Your task to perform on an android device: Open settings Image 0: 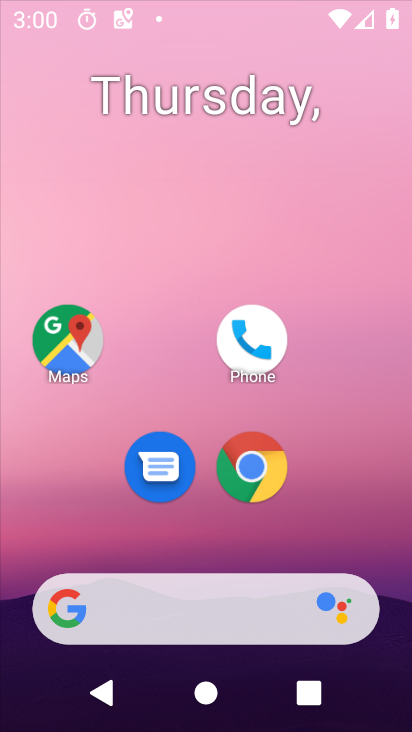
Step 0: click (214, 222)
Your task to perform on an android device: Open settings Image 1: 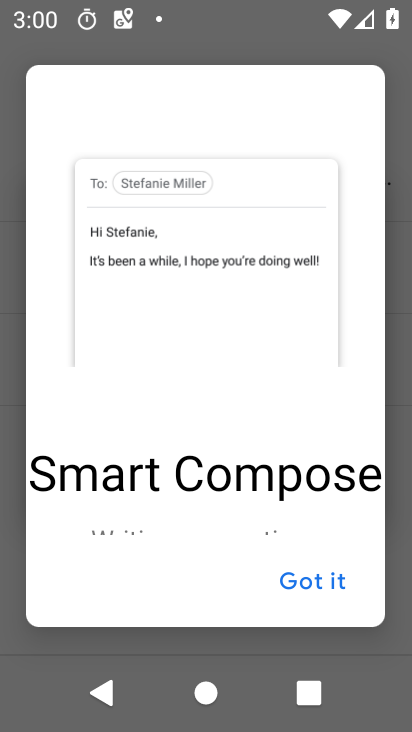
Step 1: drag from (187, 567) to (203, 151)
Your task to perform on an android device: Open settings Image 2: 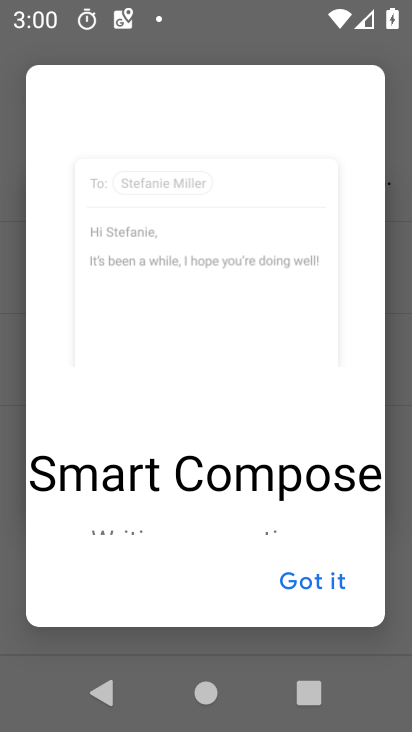
Step 2: press home button
Your task to perform on an android device: Open settings Image 3: 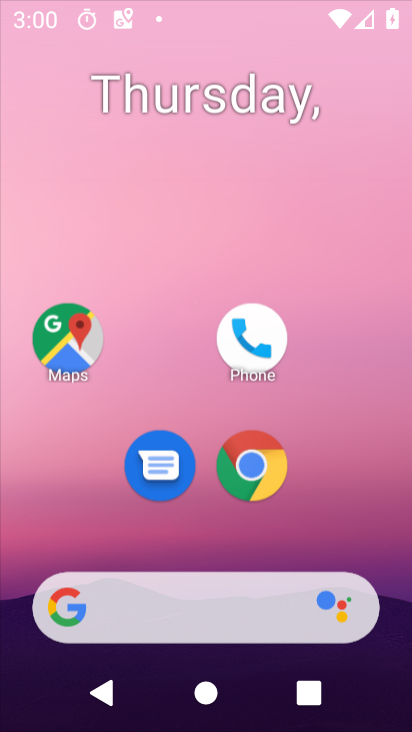
Step 3: drag from (212, 602) to (199, 188)
Your task to perform on an android device: Open settings Image 4: 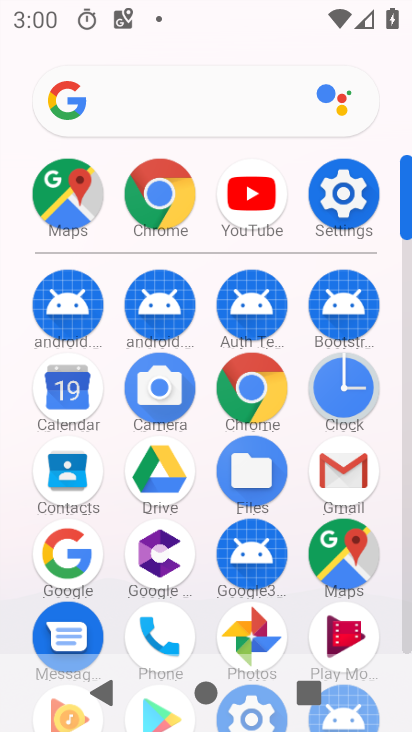
Step 4: click (351, 175)
Your task to perform on an android device: Open settings Image 5: 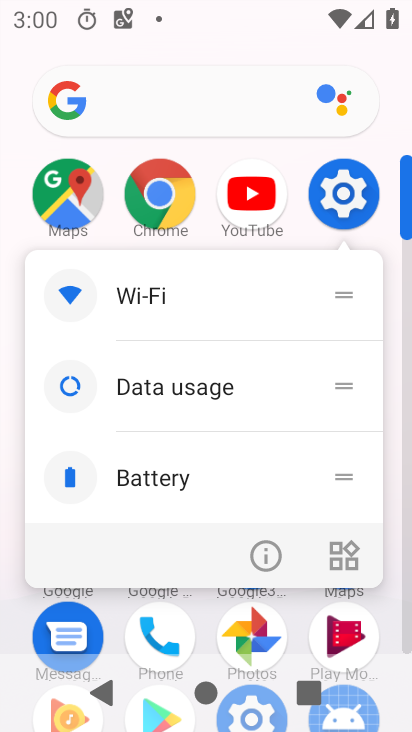
Step 5: click (271, 546)
Your task to perform on an android device: Open settings Image 6: 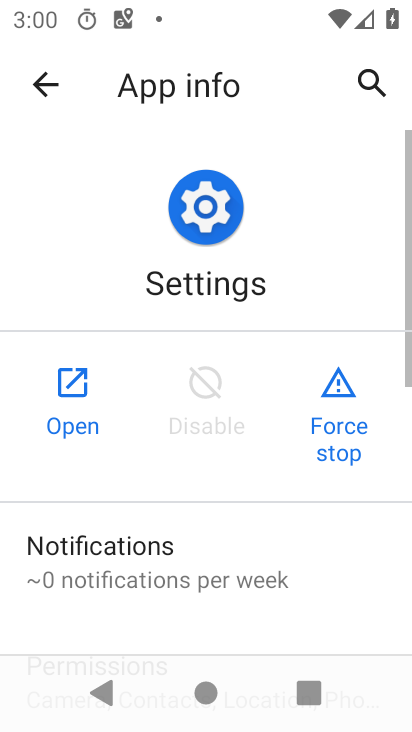
Step 6: click (38, 401)
Your task to perform on an android device: Open settings Image 7: 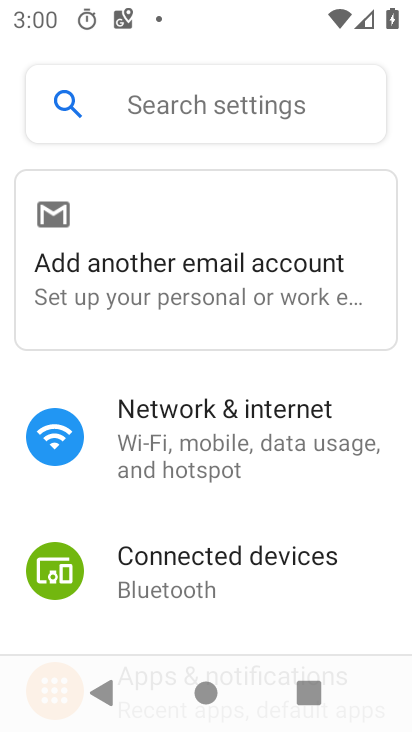
Step 7: task complete